Your task to perform on an android device: Show me popular videos on Youtube Image 0: 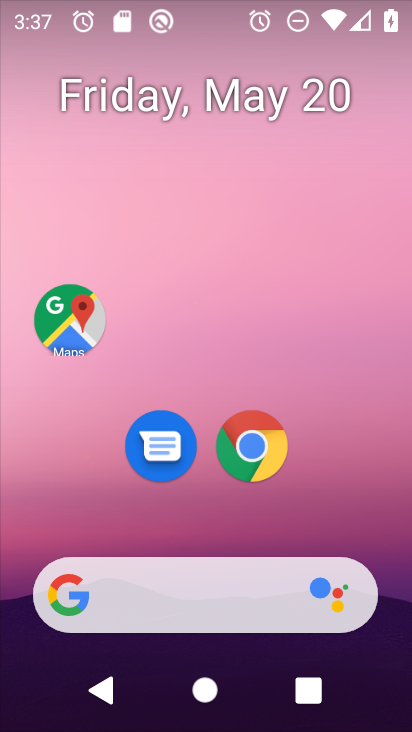
Step 0: drag from (358, 553) to (409, 24)
Your task to perform on an android device: Show me popular videos on Youtube Image 1: 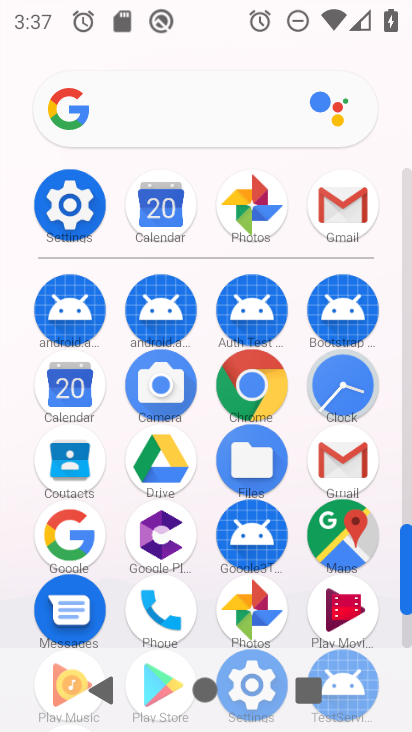
Step 1: drag from (402, 573) to (412, 528)
Your task to perform on an android device: Show me popular videos on Youtube Image 2: 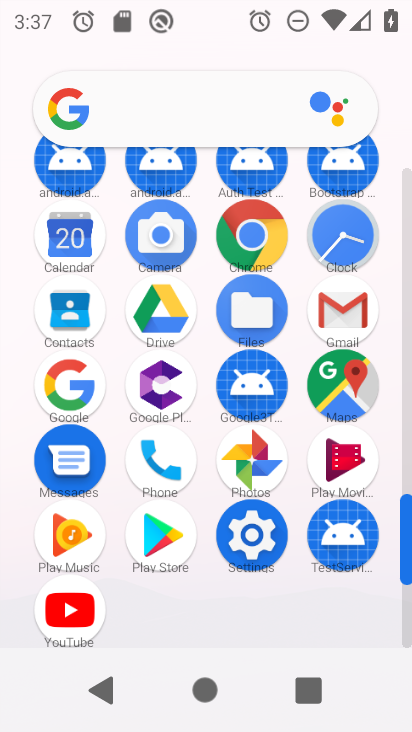
Step 2: click (63, 620)
Your task to perform on an android device: Show me popular videos on Youtube Image 3: 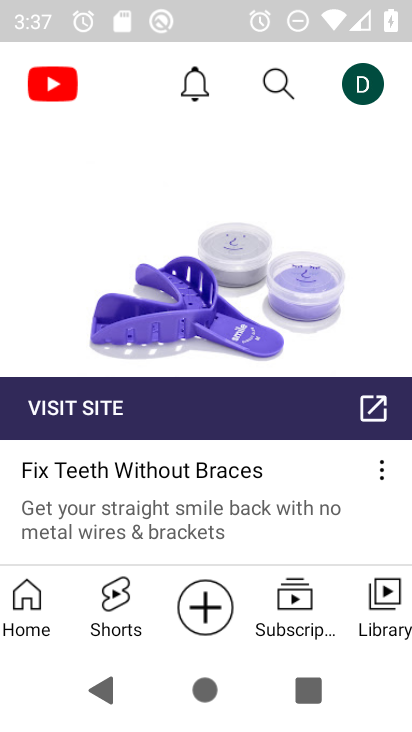
Step 3: drag from (189, 478) to (199, 171)
Your task to perform on an android device: Show me popular videos on Youtube Image 4: 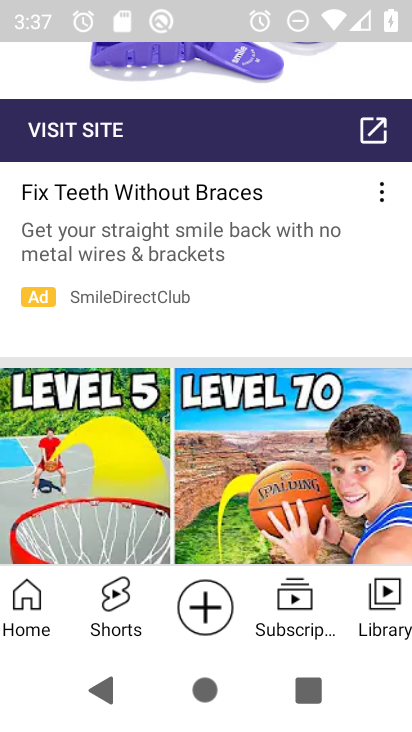
Step 4: click (33, 609)
Your task to perform on an android device: Show me popular videos on Youtube Image 5: 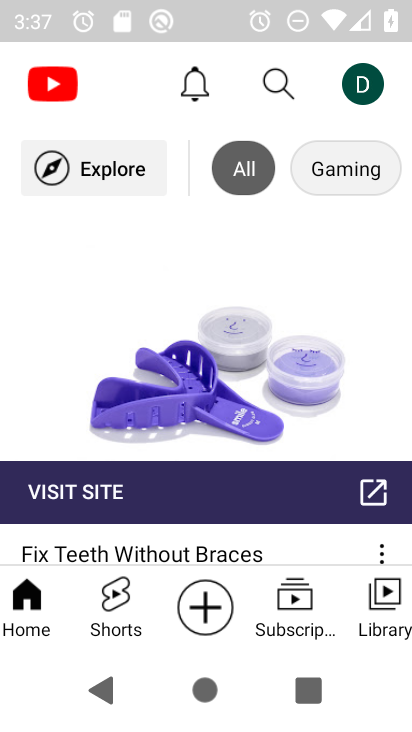
Step 5: task complete